Your task to perform on an android device: Go to Wikipedia Image 0: 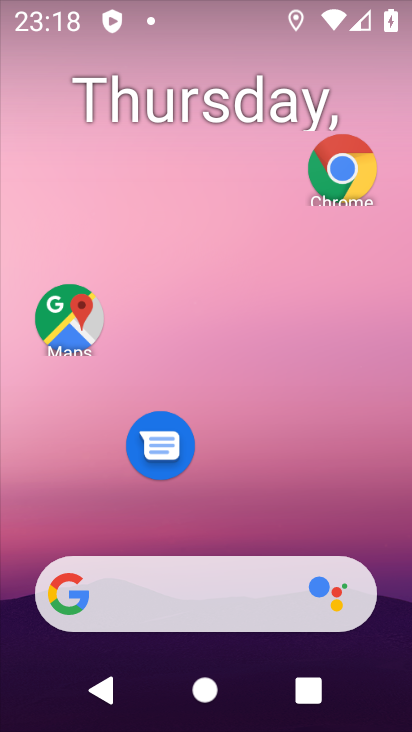
Step 0: click (255, 148)
Your task to perform on an android device: Go to Wikipedia Image 1: 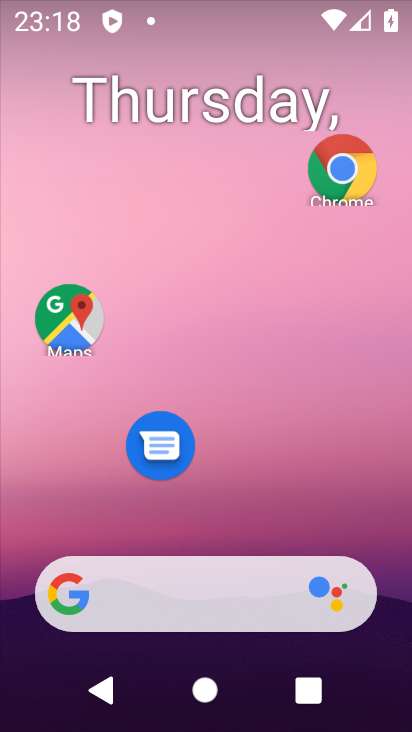
Step 1: drag from (210, 497) to (227, 38)
Your task to perform on an android device: Go to Wikipedia Image 2: 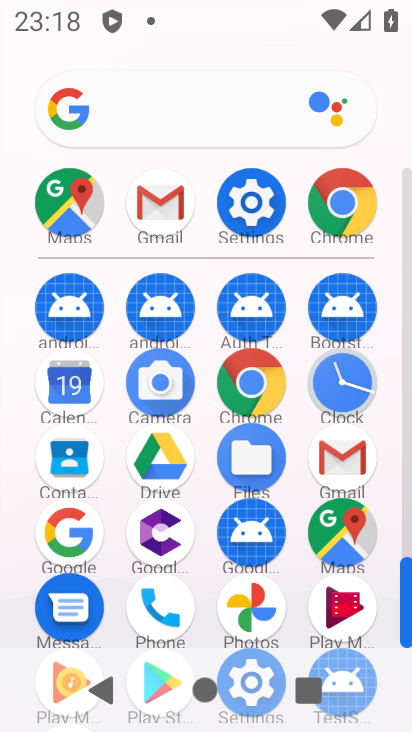
Step 2: click (330, 204)
Your task to perform on an android device: Go to Wikipedia Image 3: 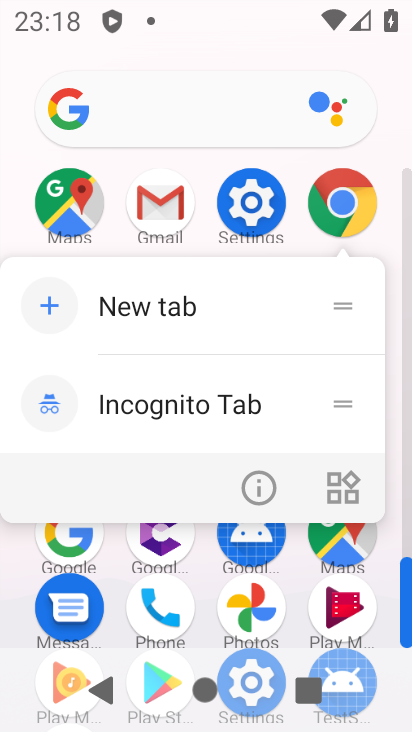
Step 3: click (265, 510)
Your task to perform on an android device: Go to Wikipedia Image 4: 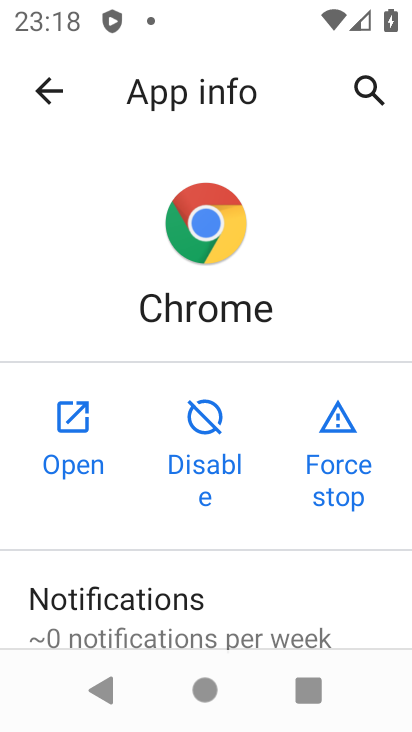
Step 4: click (42, 419)
Your task to perform on an android device: Go to Wikipedia Image 5: 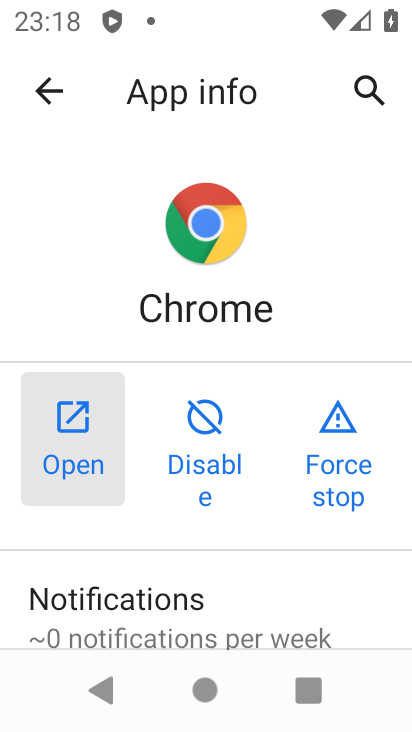
Step 5: click (78, 422)
Your task to perform on an android device: Go to Wikipedia Image 6: 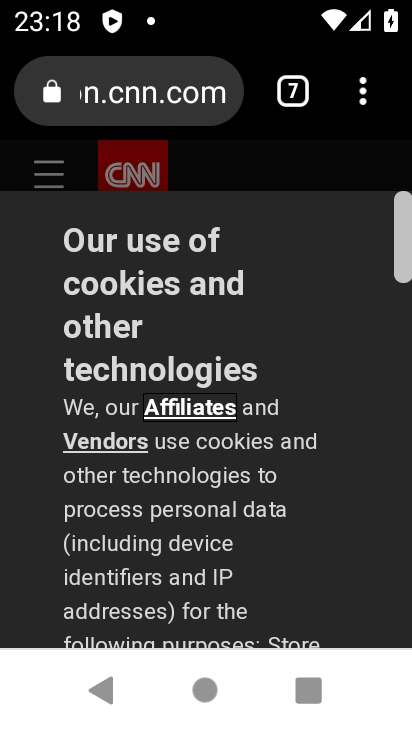
Step 6: drag from (241, 527) to (324, 224)
Your task to perform on an android device: Go to Wikipedia Image 7: 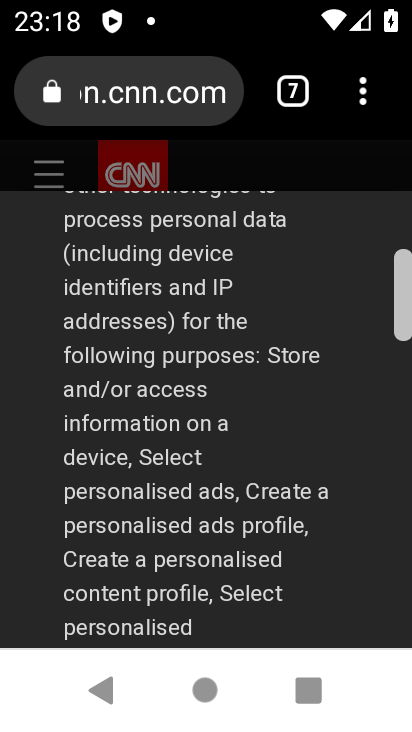
Step 7: drag from (326, 216) to (284, 650)
Your task to perform on an android device: Go to Wikipedia Image 8: 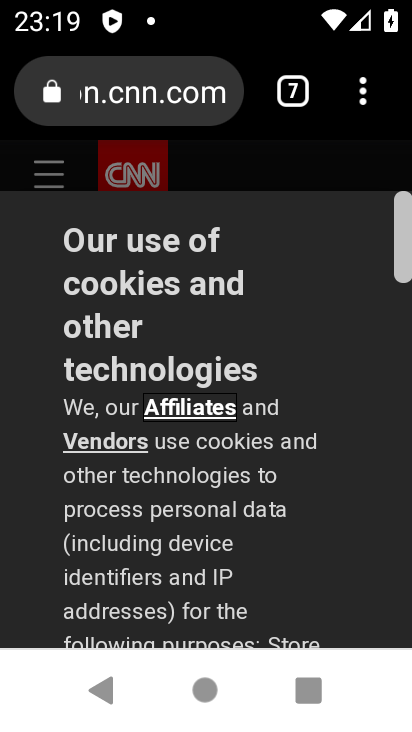
Step 8: click (366, 85)
Your task to perform on an android device: Go to Wikipedia Image 9: 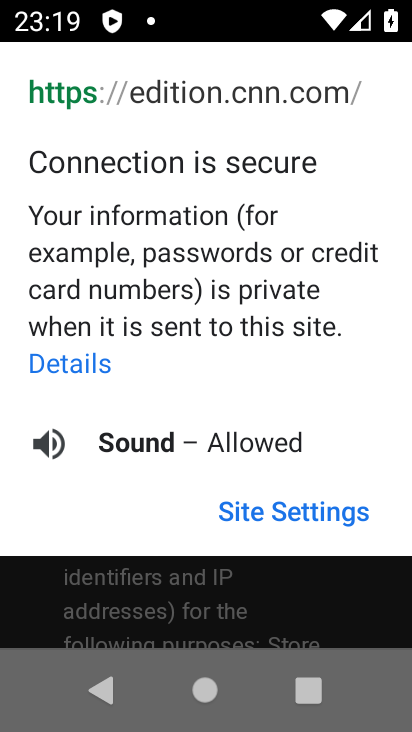
Step 9: click (177, 591)
Your task to perform on an android device: Go to Wikipedia Image 10: 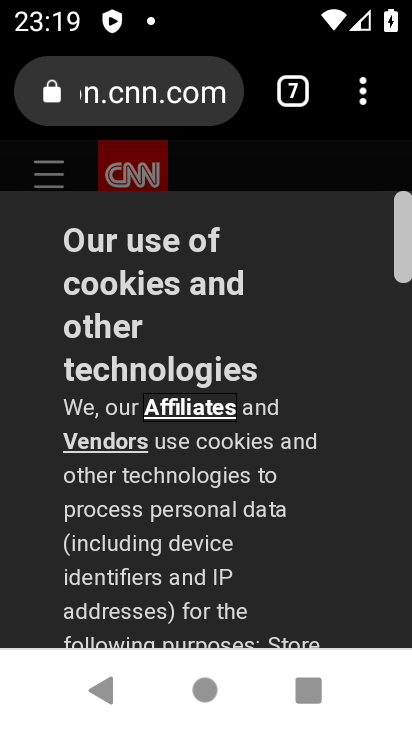
Step 10: drag from (346, 86) to (304, 88)
Your task to perform on an android device: Go to Wikipedia Image 11: 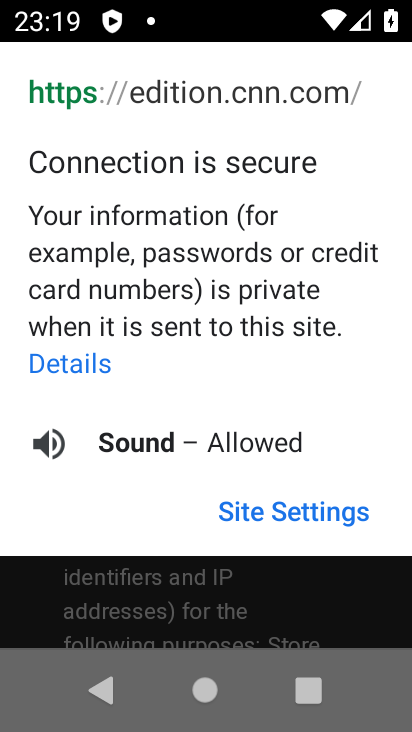
Step 11: click (332, 502)
Your task to perform on an android device: Go to Wikipedia Image 12: 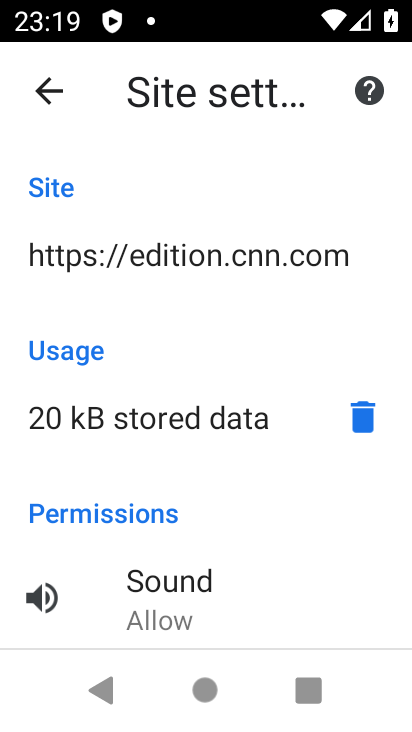
Step 12: click (65, 91)
Your task to perform on an android device: Go to Wikipedia Image 13: 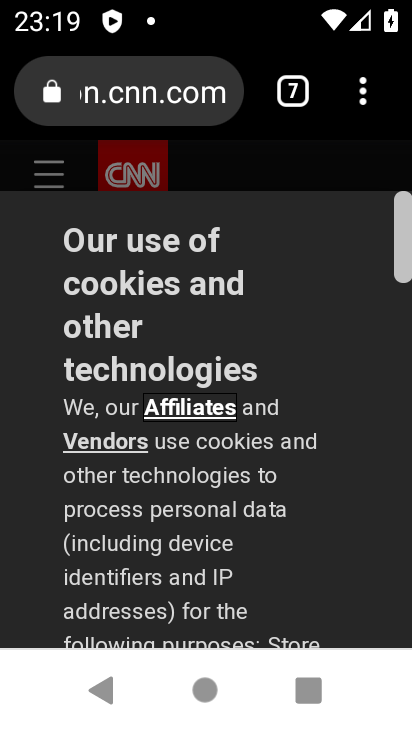
Step 13: click (320, 78)
Your task to perform on an android device: Go to Wikipedia Image 14: 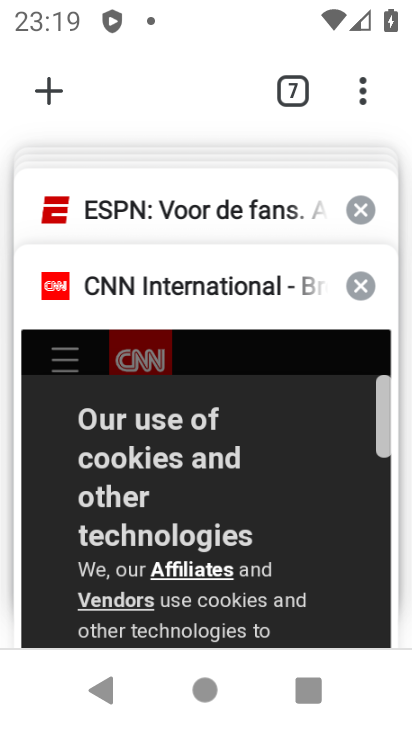
Step 14: click (362, 209)
Your task to perform on an android device: Go to Wikipedia Image 15: 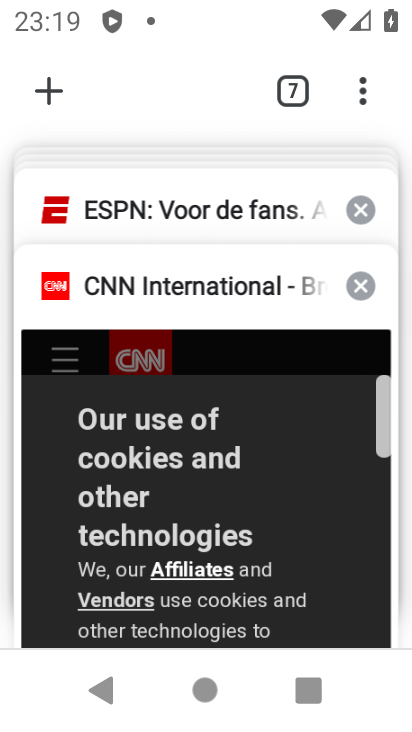
Step 15: click (362, 209)
Your task to perform on an android device: Go to Wikipedia Image 16: 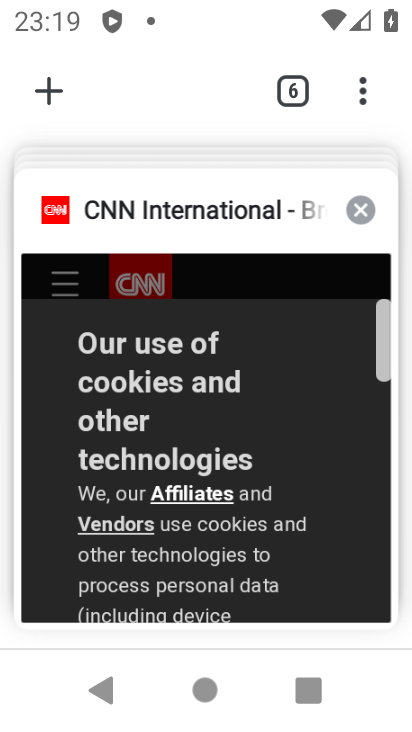
Step 16: click (362, 209)
Your task to perform on an android device: Go to Wikipedia Image 17: 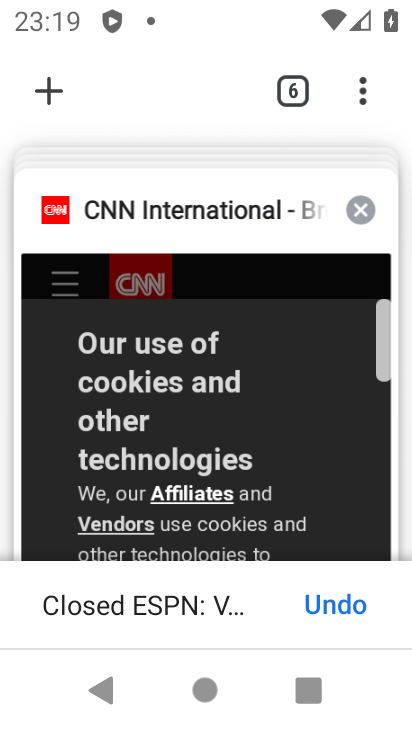
Step 17: click (361, 209)
Your task to perform on an android device: Go to Wikipedia Image 18: 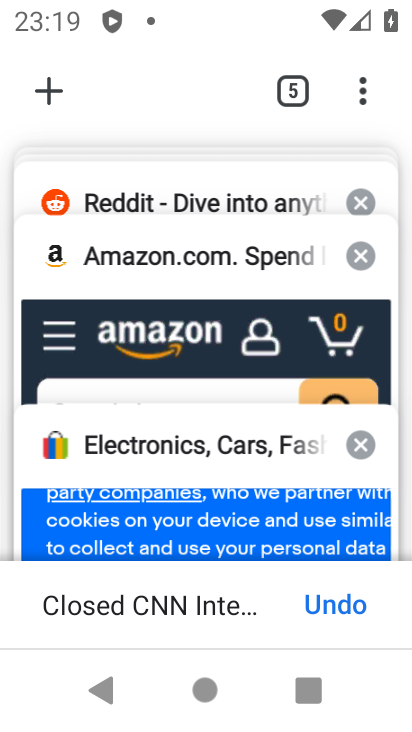
Step 18: click (360, 208)
Your task to perform on an android device: Go to Wikipedia Image 19: 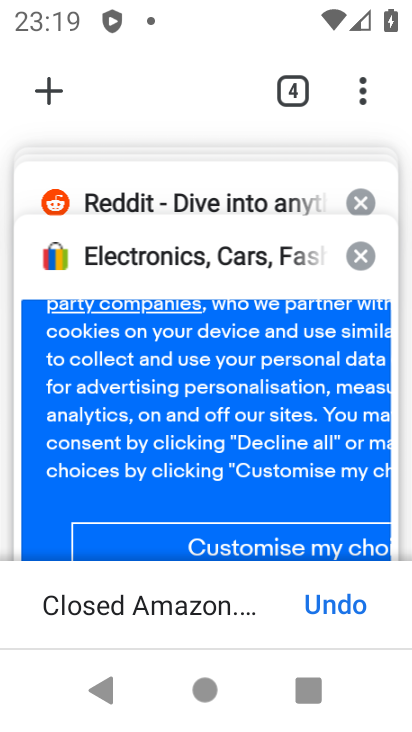
Step 19: click (351, 203)
Your task to perform on an android device: Go to Wikipedia Image 20: 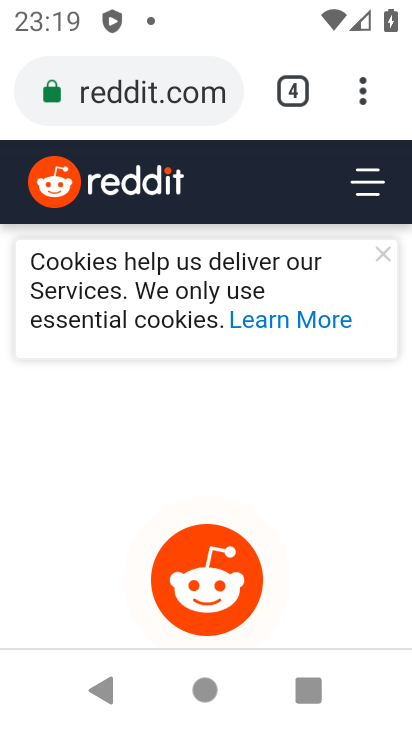
Step 20: click (287, 93)
Your task to perform on an android device: Go to Wikipedia Image 21: 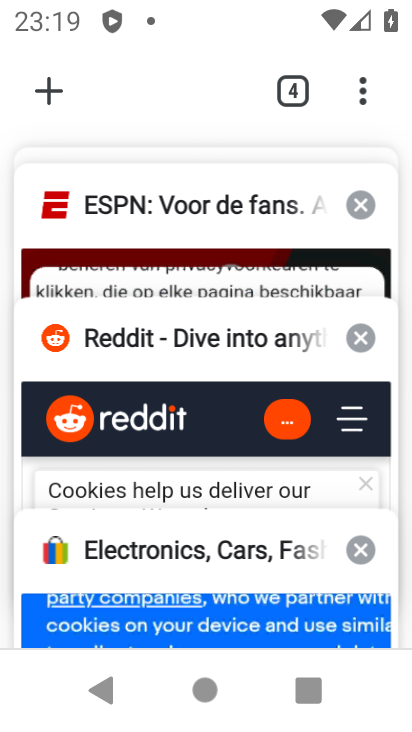
Step 21: click (360, 335)
Your task to perform on an android device: Go to Wikipedia Image 22: 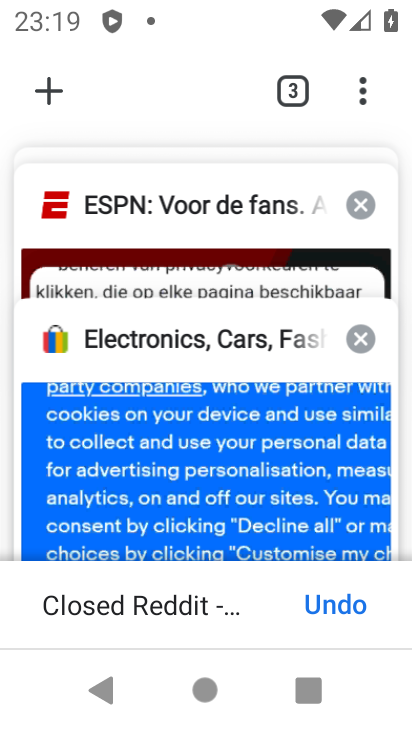
Step 22: click (358, 210)
Your task to perform on an android device: Go to Wikipedia Image 23: 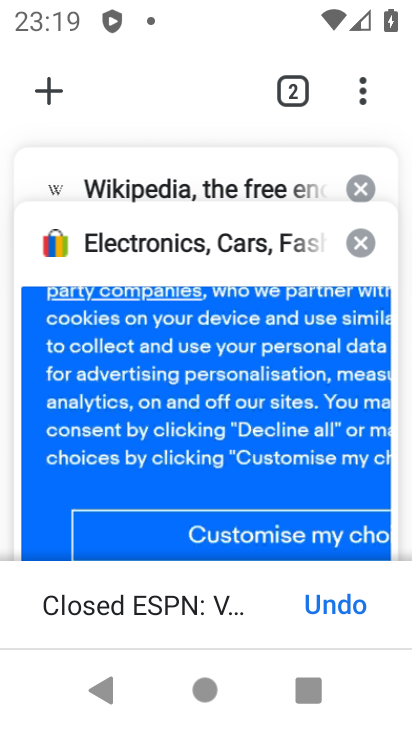
Step 23: click (353, 235)
Your task to perform on an android device: Go to Wikipedia Image 24: 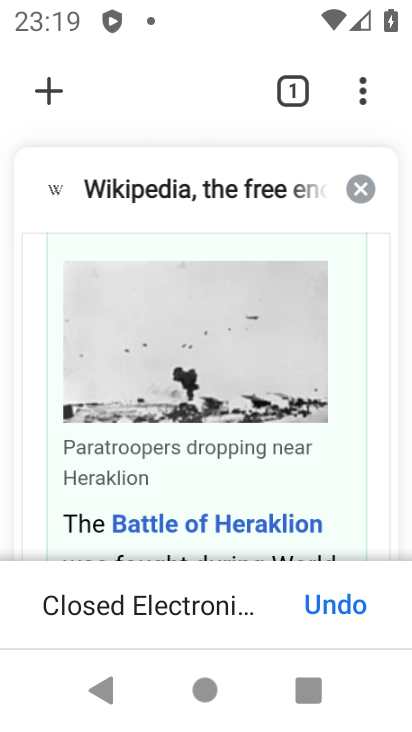
Step 24: click (363, 190)
Your task to perform on an android device: Go to Wikipedia Image 25: 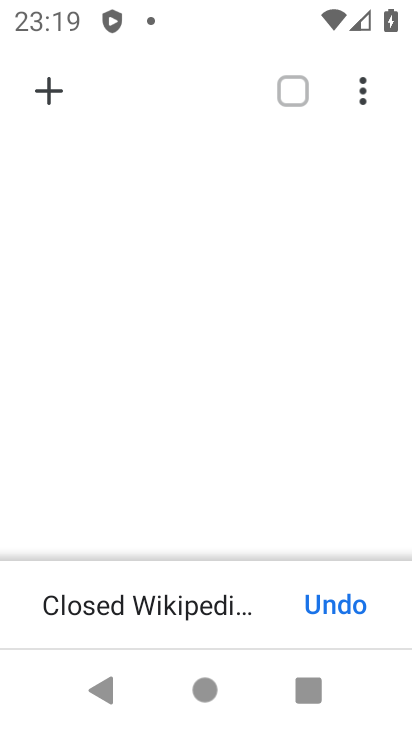
Step 25: click (54, 87)
Your task to perform on an android device: Go to Wikipedia Image 26: 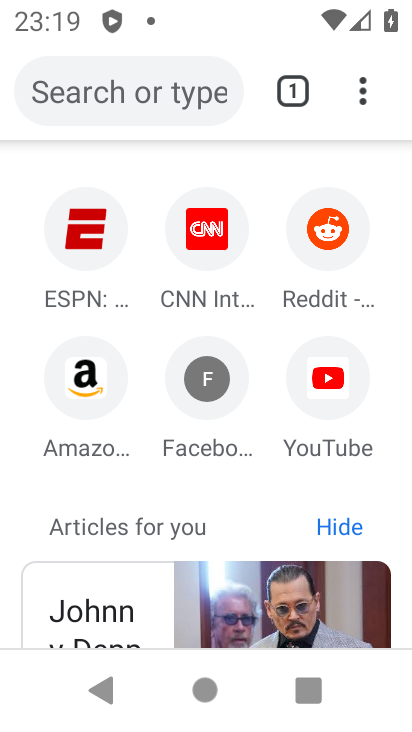
Step 26: click (118, 104)
Your task to perform on an android device: Go to Wikipedia Image 27: 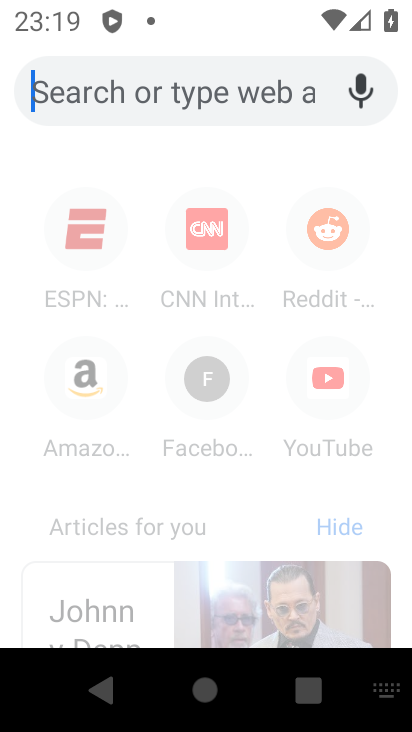
Step 27: type "wikipedia"
Your task to perform on an android device: Go to Wikipedia Image 28: 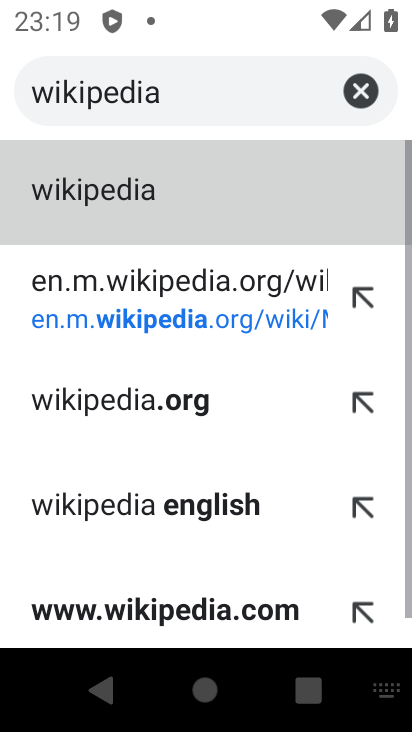
Step 28: click (131, 229)
Your task to perform on an android device: Go to Wikipedia Image 29: 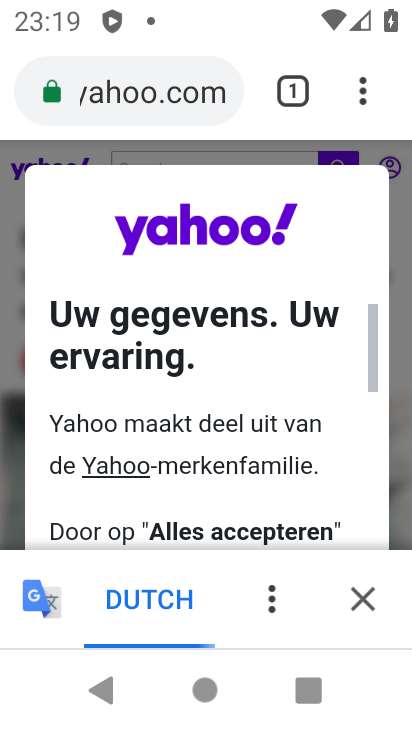
Step 29: task complete